Your task to perform on an android device: Find coffee shops on Maps Image 0: 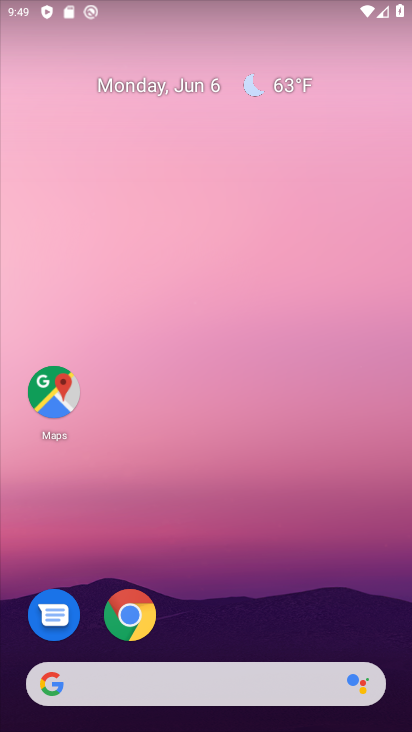
Step 0: click (44, 381)
Your task to perform on an android device: Find coffee shops on Maps Image 1: 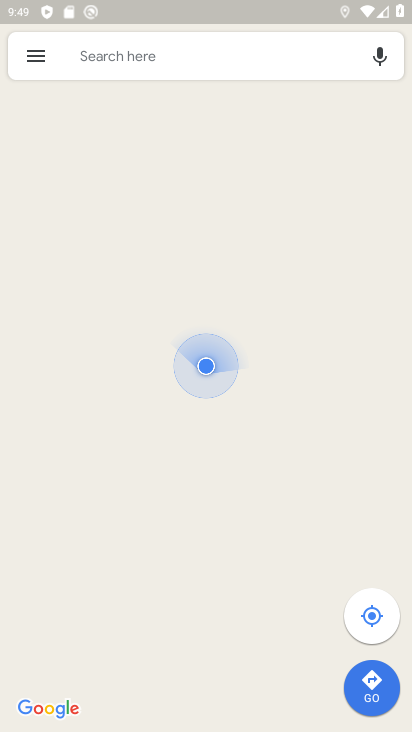
Step 1: click (191, 66)
Your task to perform on an android device: Find coffee shops on Maps Image 2: 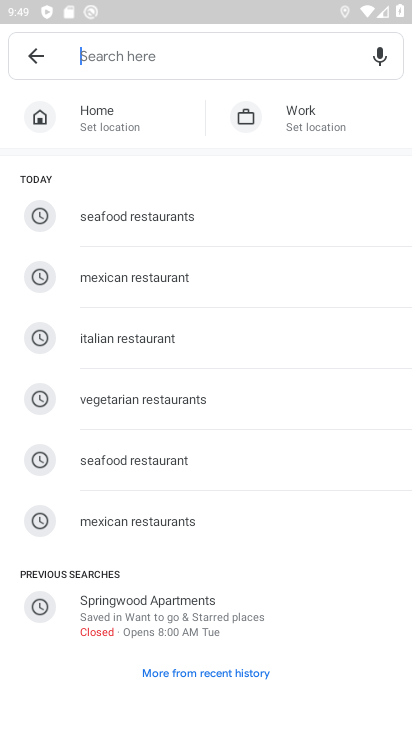
Step 2: click (132, 59)
Your task to perform on an android device: Find coffee shops on Maps Image 3: 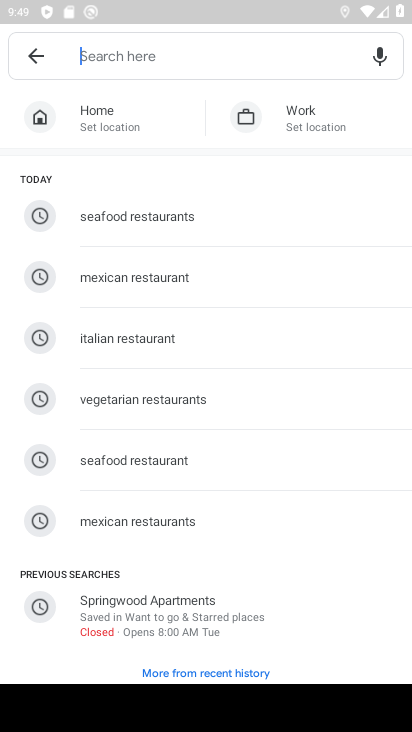
Step 3: type "coffe shops"
Your task to perform on an android device: Find coffee shops on Maps Image 4: 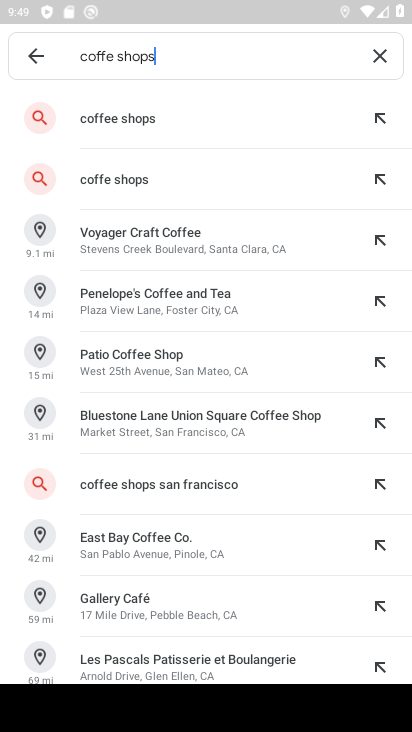
Step 4: click (149, 133)
Your task to perform on an android device: Find coffee shops on Maps Image 5: 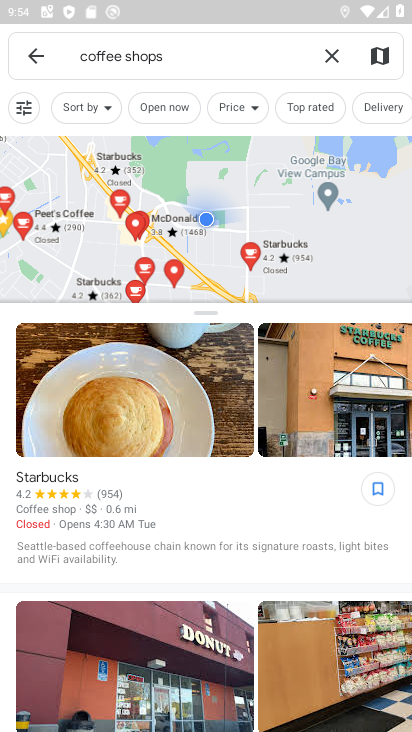
Step 5: task complete